Your task to perform on an android device: Do I have any events tomorrow? Image 0: 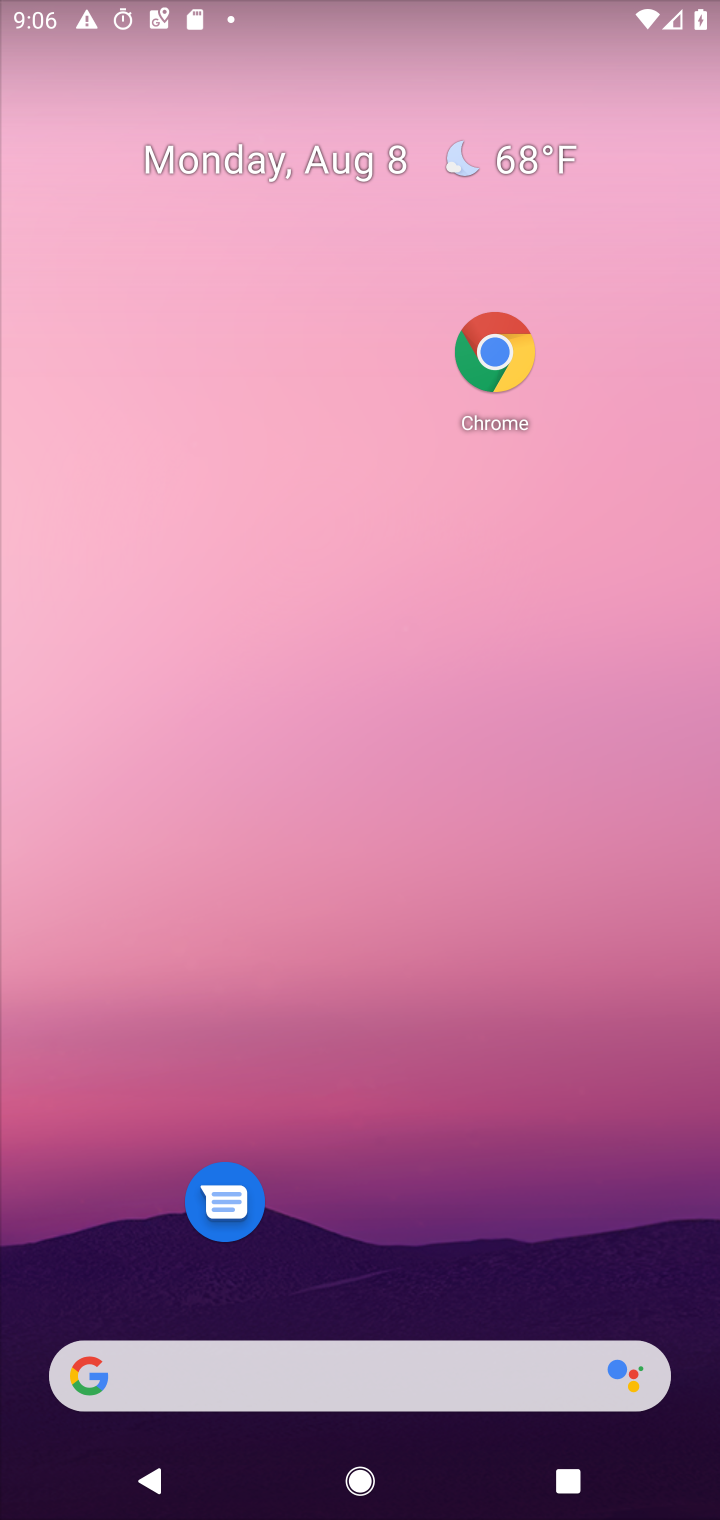
Step 0: drag from (461, 1251) to (342, 733)
Your task to perform on an android device: Do I have any events tomorrow? Image 1: 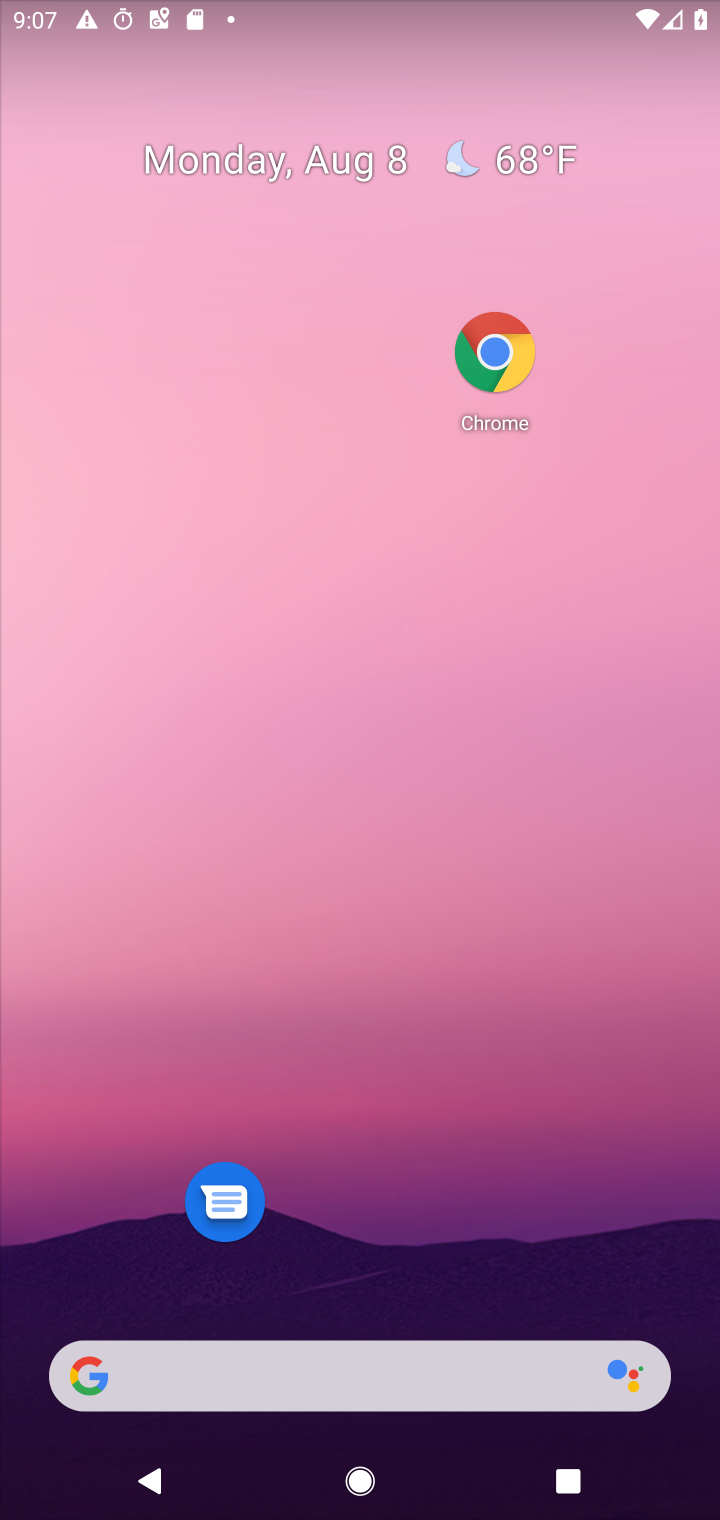
Step 1: drag from (418, 1222) to (300, 673)
Your task to perform on an android device: Do I have any events tomorrow? Image 2: 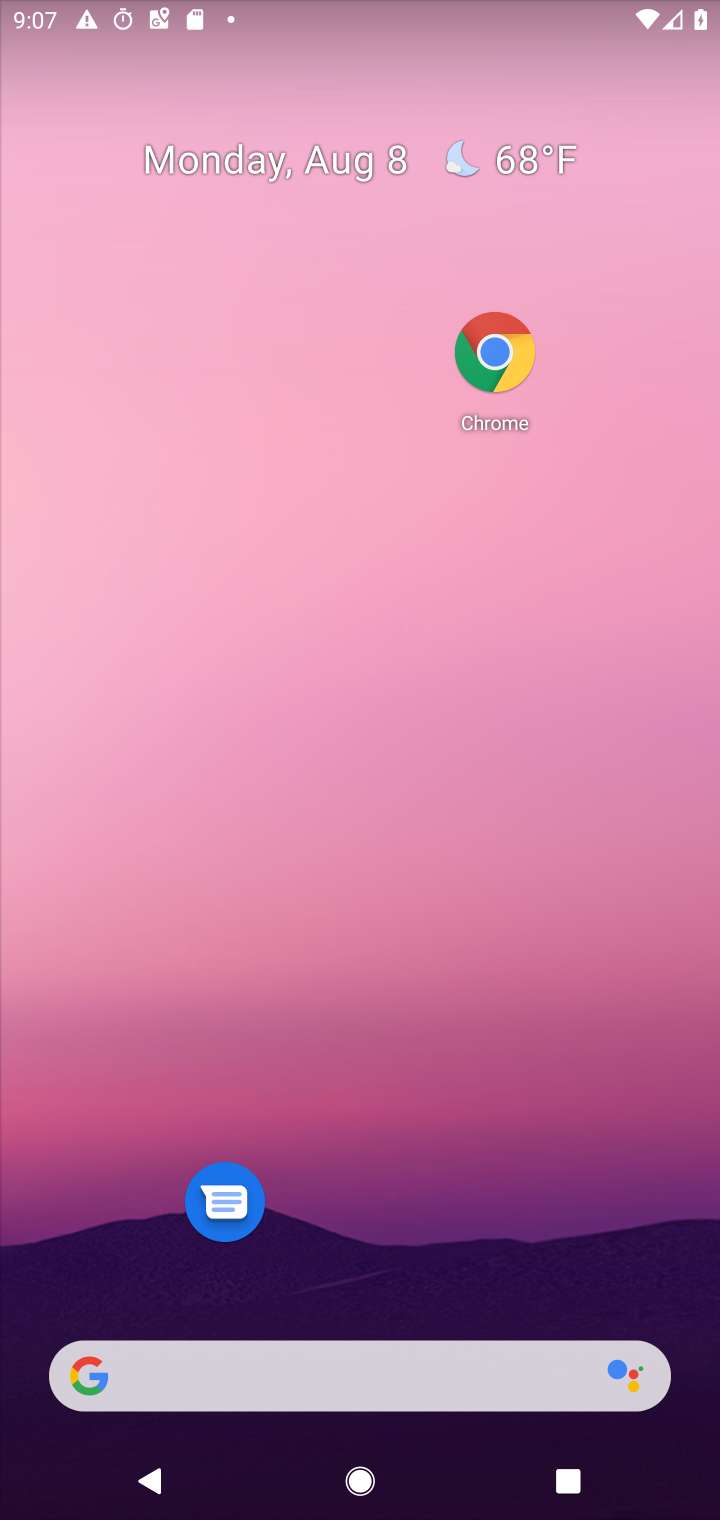
Step 2: drag from (395, 1329) to (424, 326)
Your task to perform on an android device: Do I have any events tomorrow? Image 3: 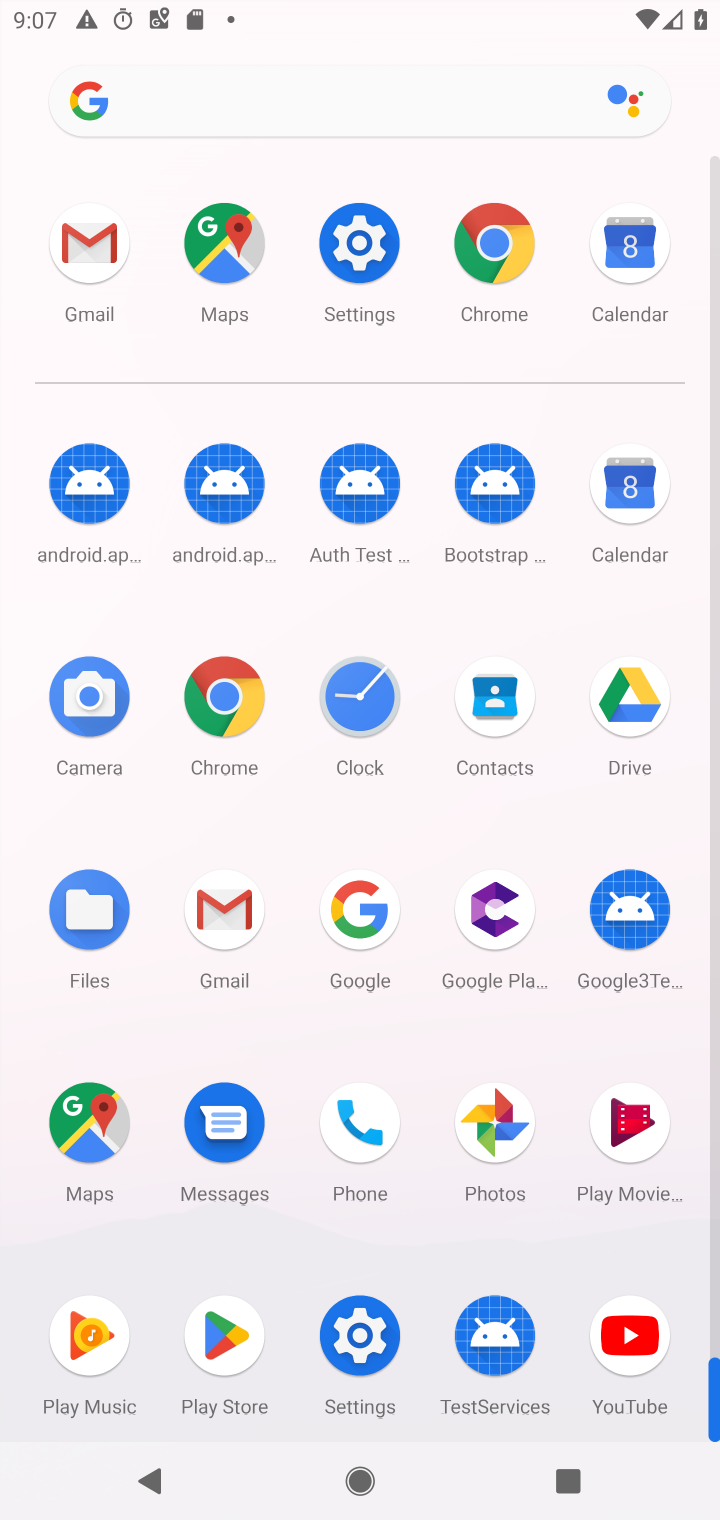
Step 3: click (657, 494)
Your task to perform on an android device: Do I have any events tomorrow? Image 4: 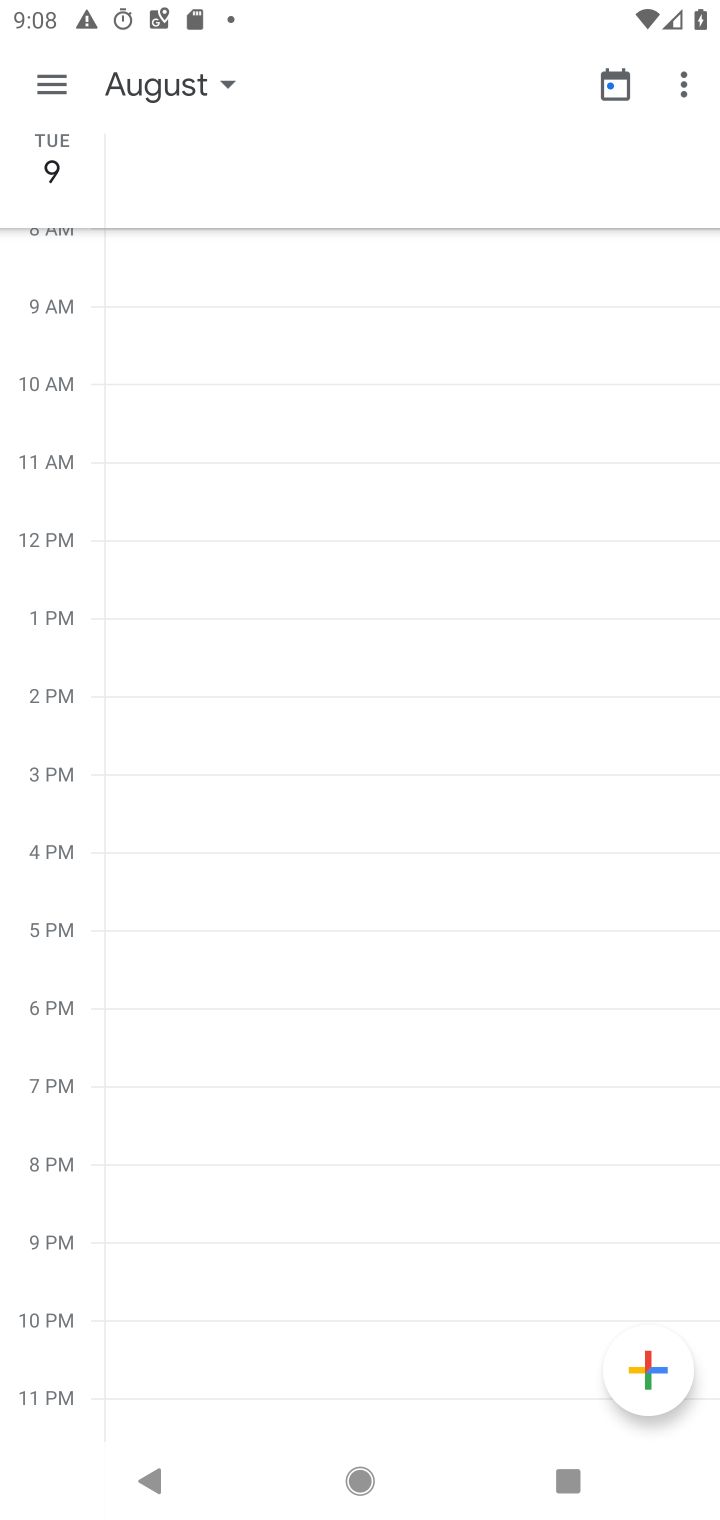
Step 4: click (69, 85)
Your task to perform on an android device: Do I have any events tomorrow? Image 5: 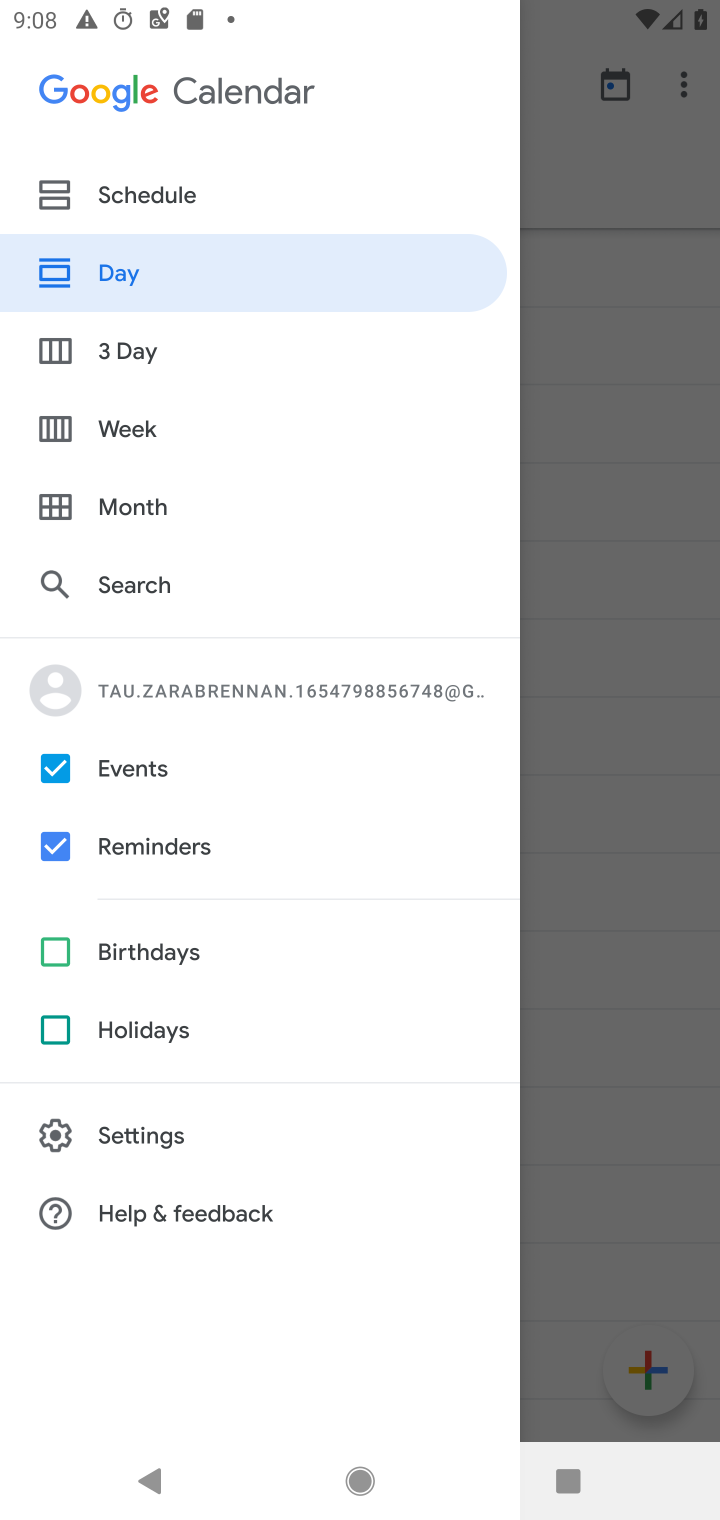
Step 5: click (122, 198)
Your task to perform on an android device: Do I have any events tomorrow? Image 6: 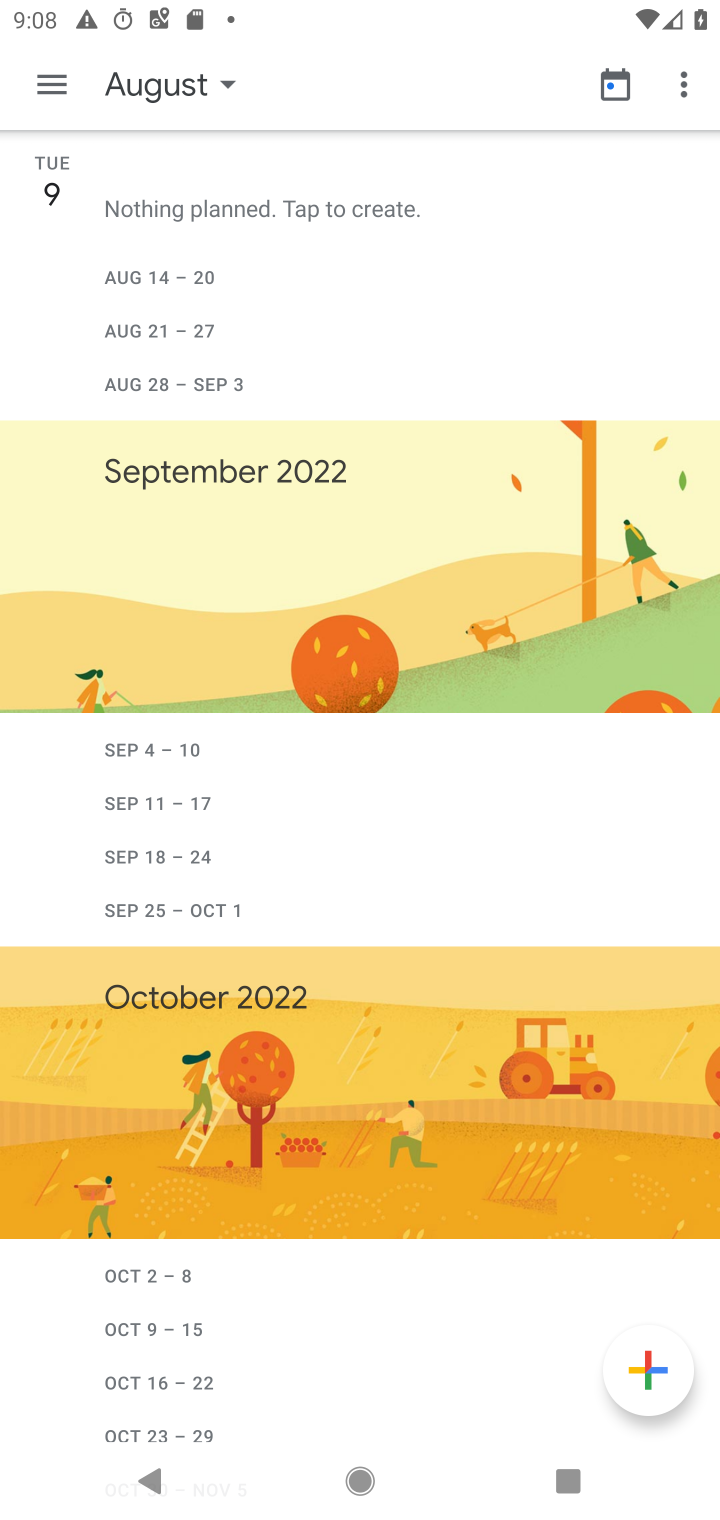
Step 6: task complete